Your task to perform on an android device: install app "Microsoft Authenticator" Image 0: 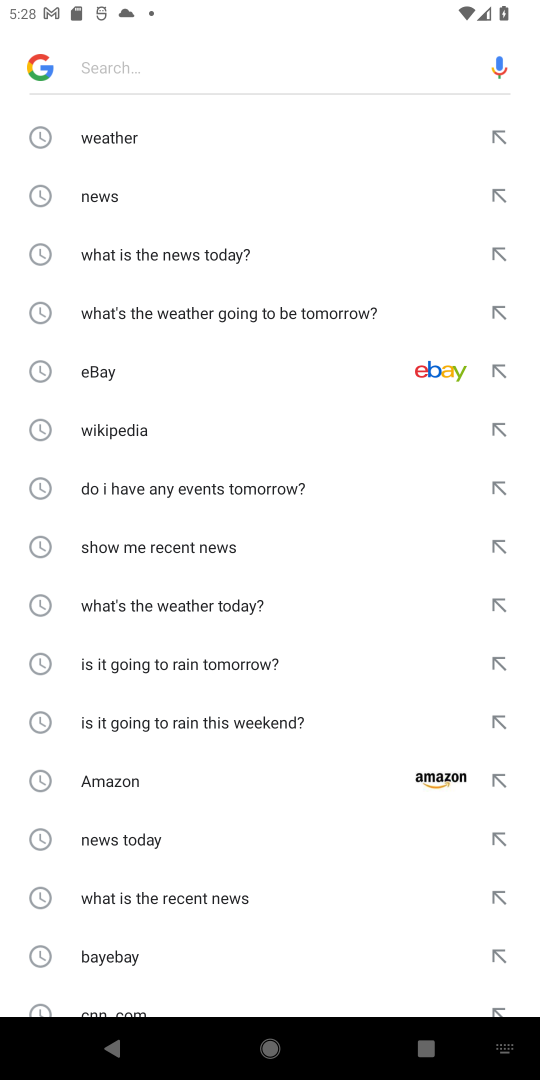
Step 0: press home button
Your task to perform on an android device: install app "Microsoft Authenticator" Image 1: 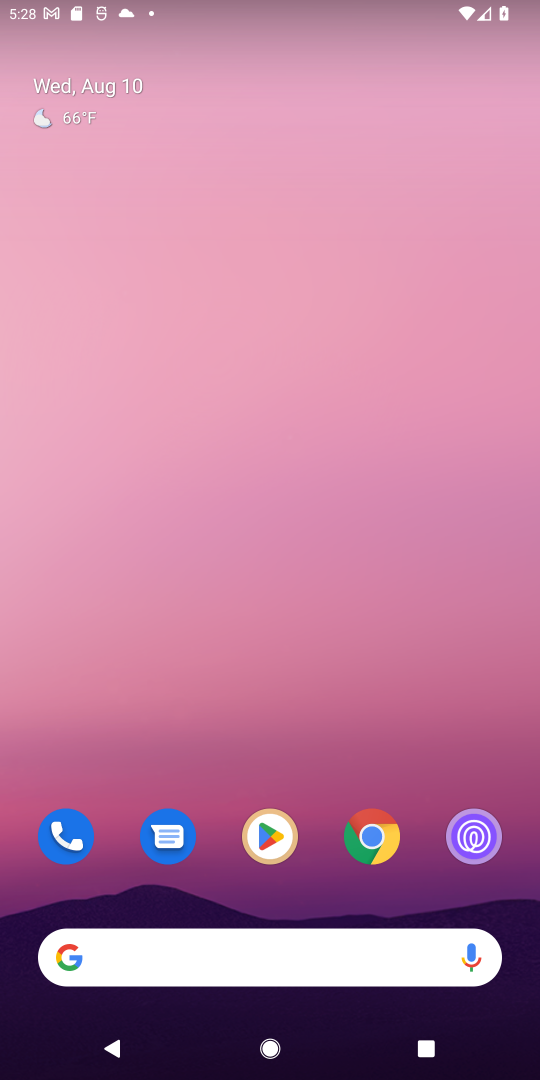
Step 1: drag from (289, 844) to (299, 319)
Your task to perform on an android device: install app "Microsoft Authenticator" Image 2: 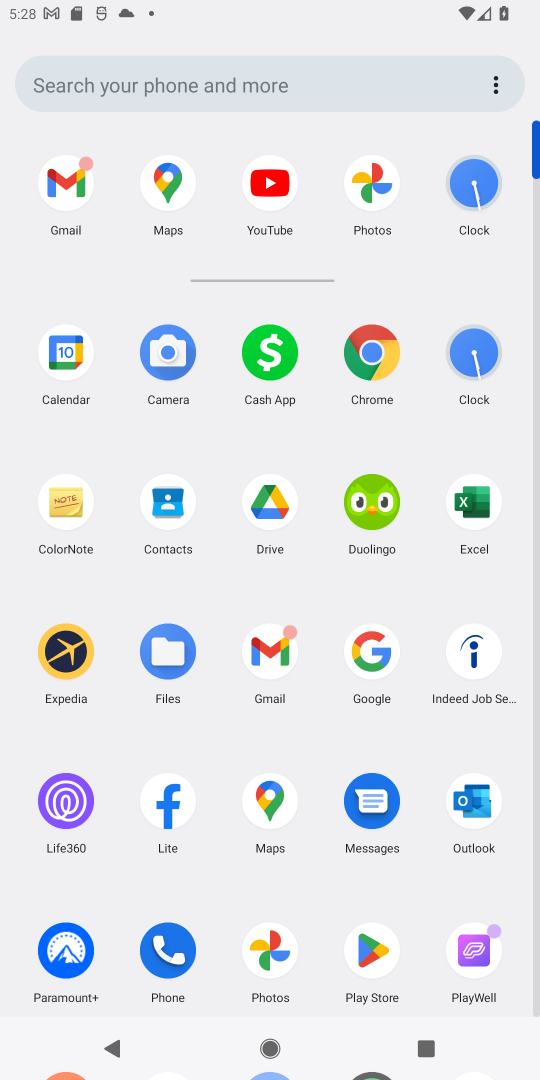
Step 2: click (361, 948)
Your task to perform on an android device: install app "Microsoft Authenticator" Image 3: 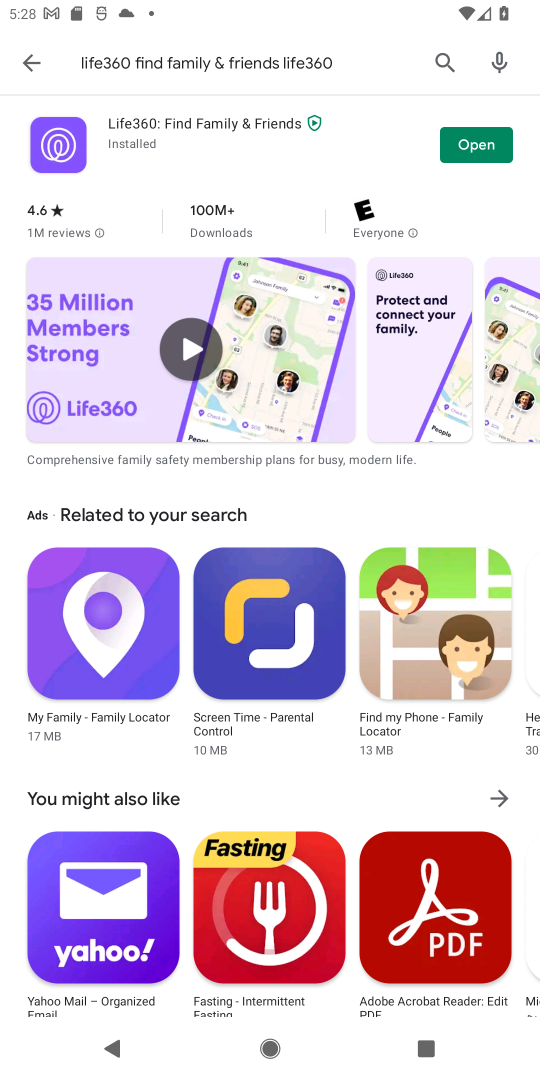
Step 3: click (47, 58)
Your task to perform on an android device: install app "Microsoft Authenticator" Image 4: 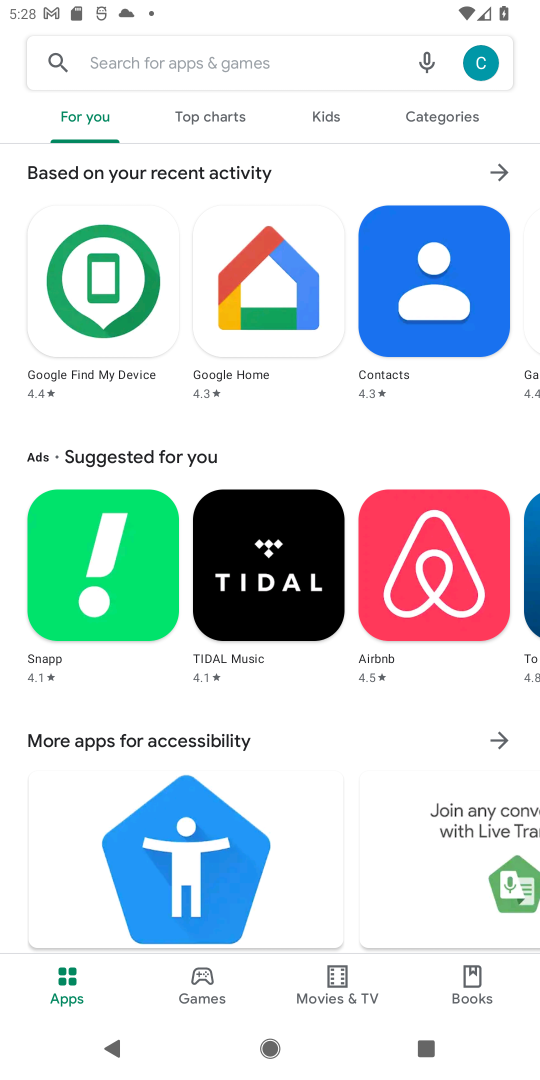
Step 4: click (260, 51)
Your task to perform on an android device: install app "Microsoft Authenticator" Image 5: 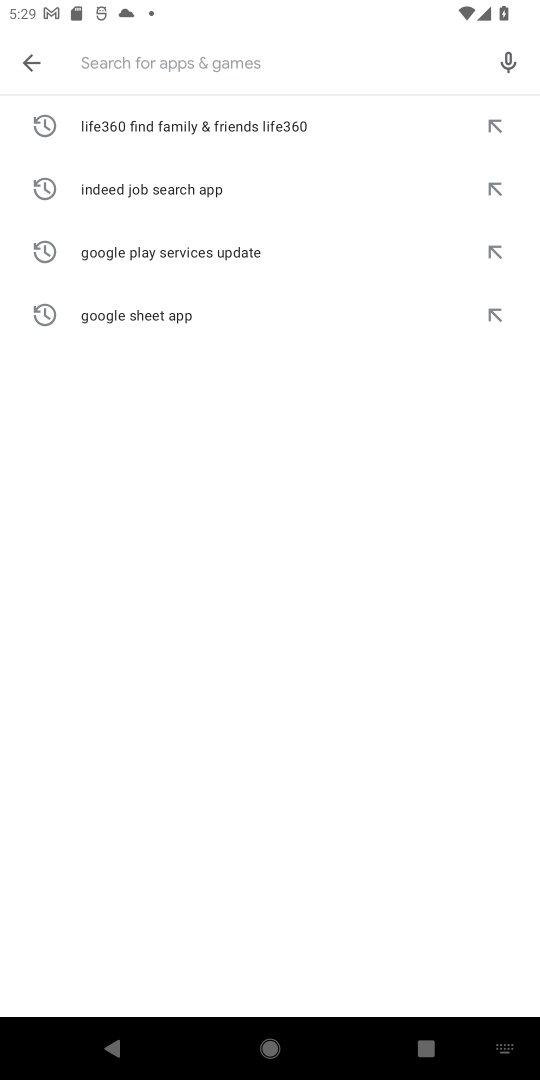
Step 5: type "Microsoft Authenticator "
Your task to perform on an android device: install app "Microsoft Authenticator" Image 6: 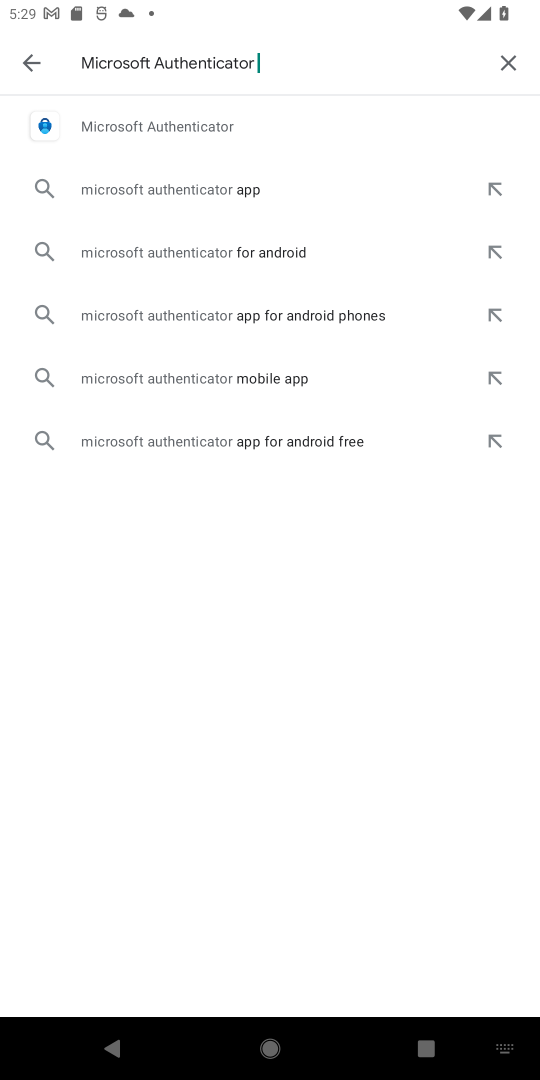
Step 6: click (166, 114)
Your task to perform on an android device: install app "Microsoft Authenticator" Image 7: 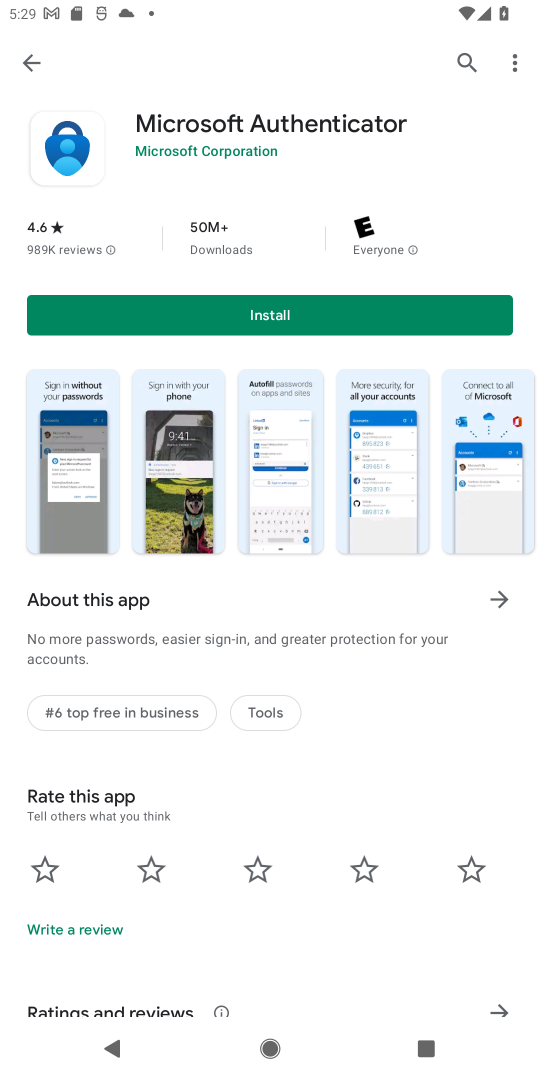
Step 7: click (252, 316)
Your task to perform on an android device: install app "Microsoft Authenticator" Image 8: 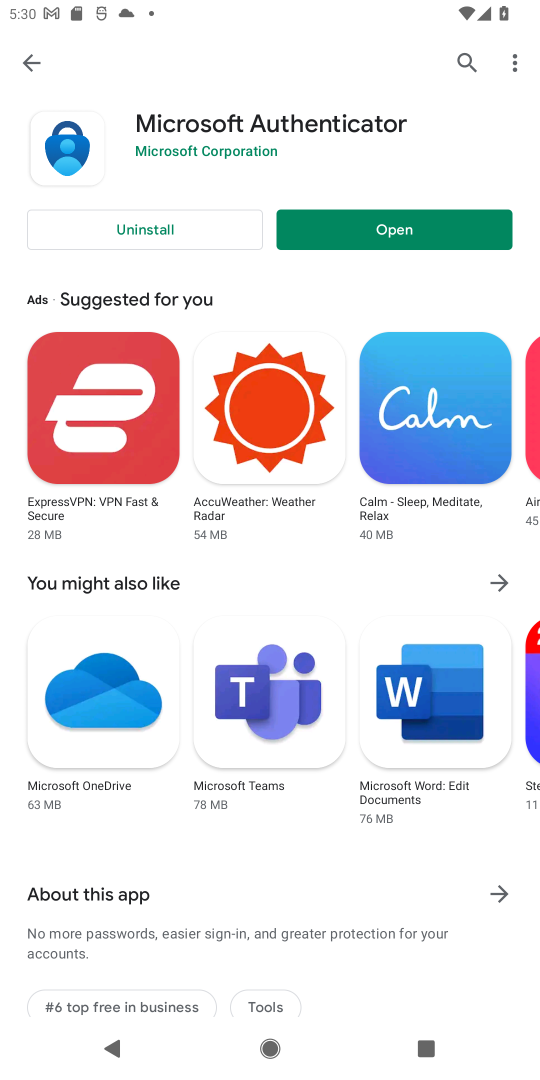
Step 8: click (420, 223)
Your task to perform on an android device: install app "Microsoft Authenticator" Image 9: 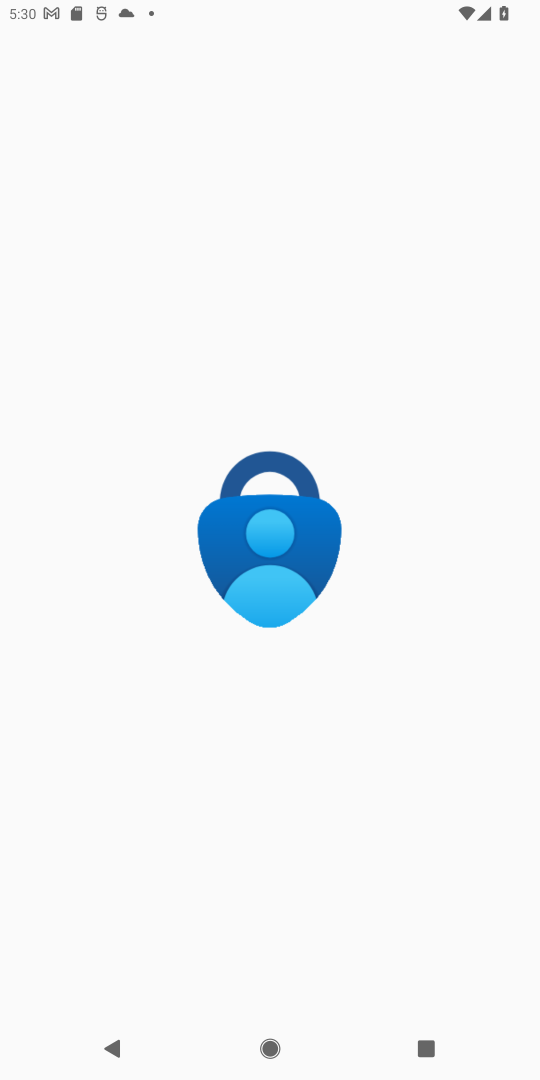
Step 9: task complete